Your task to perform on an android device: check data usage Image 0: 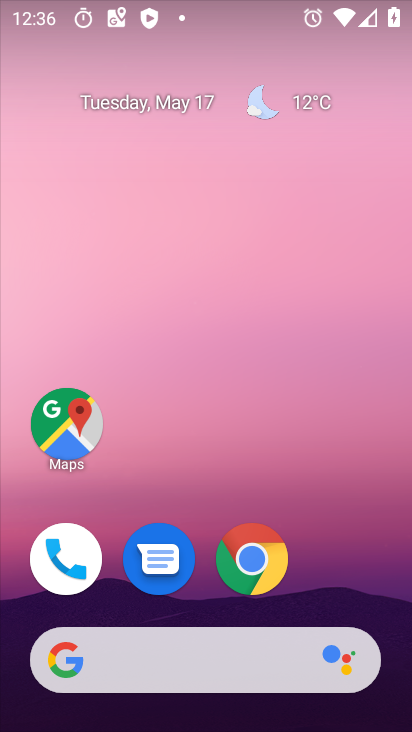
Step 0: drag from (352, 540) to (325, 63)
Your task to perform on an android device: check data usage Image 1: 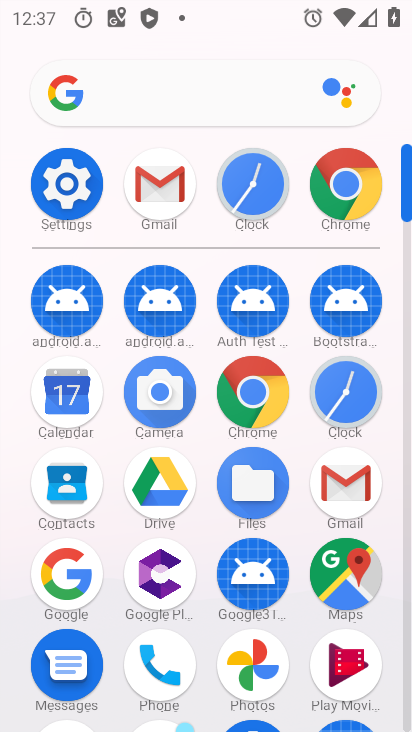
Step 1: click (82, 186)
Your task to perform on an android device: check data usage Image 2: 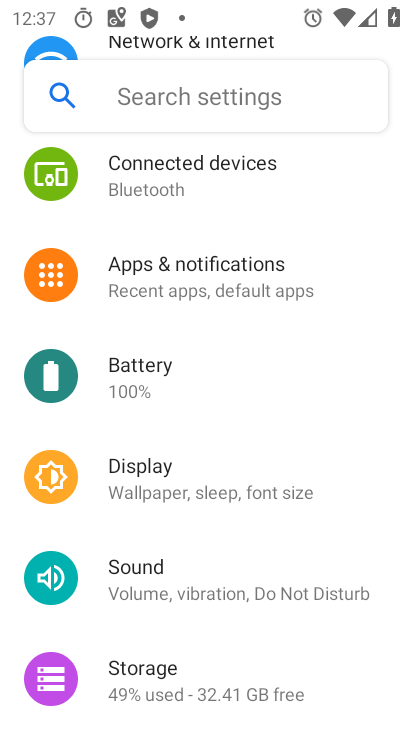
Step 2: drag from (161, 184) to (220, 562)
Your task to perform on an android device: check data usage Image 3: 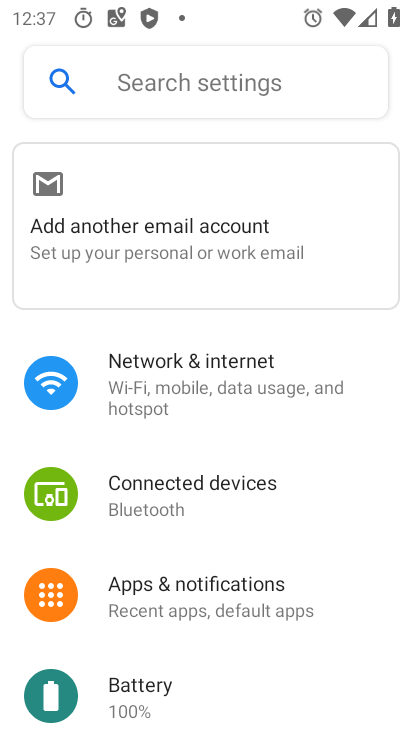
Step 3: click (179, 400)
Your task to perform on an android device: check data usage Image 4: 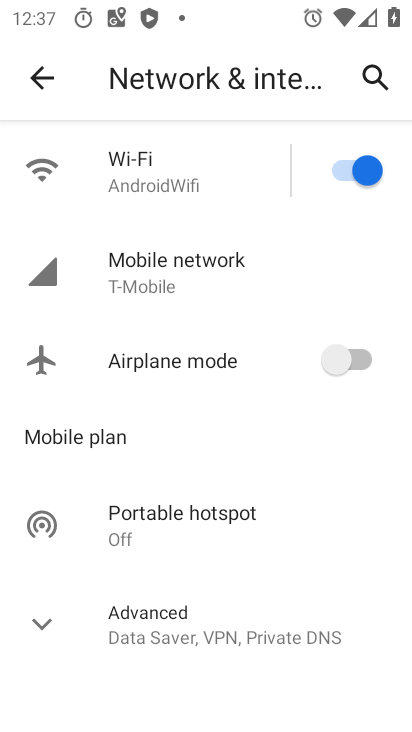
Step 4: click (171, 307)
Your task to perform on an android device: check data usage Image 5: 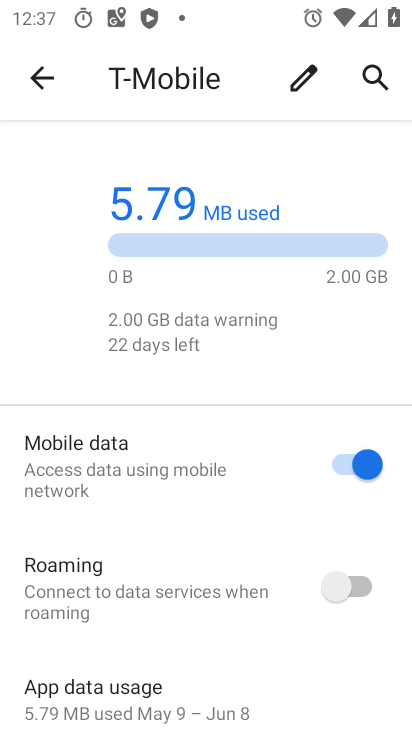
Step 5: task complete